Your task to perform on an android device: Find the nearest grocery store Image 0: 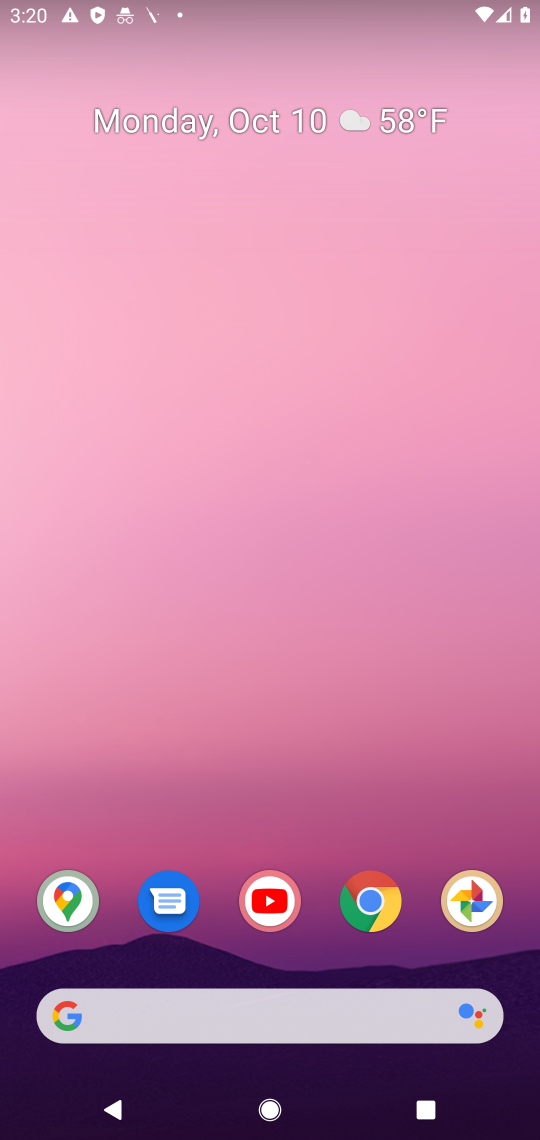
Step 0: drag from (206, 954) to (232, 521)
Your task to perform on an android device: Find the nearest grocery store Image 1: 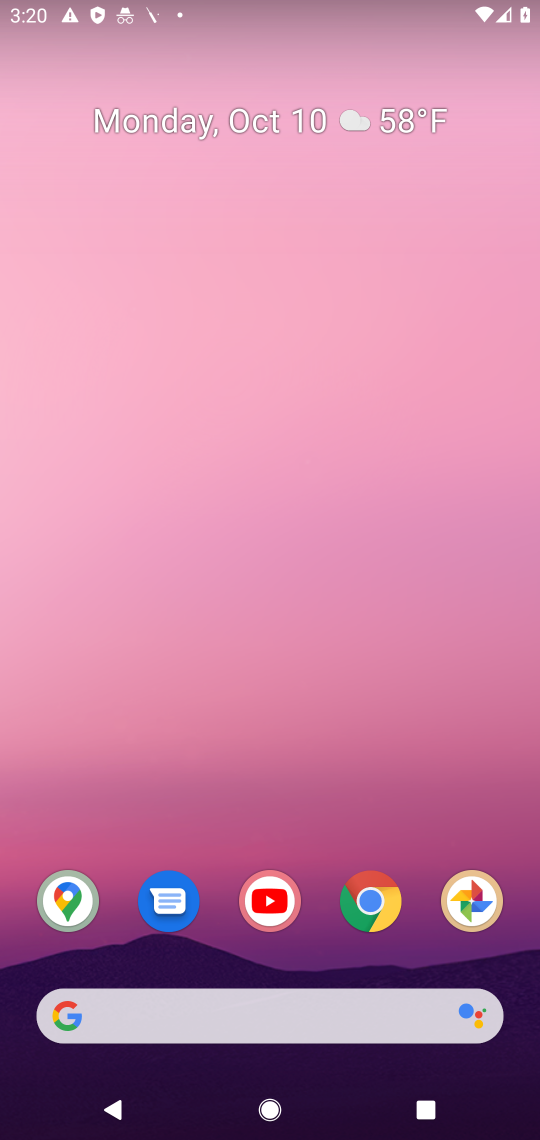
Step 1: drag from (281, 932) to (284, 525)
Your task to perform on an android device: Find the nearest grocery store Image 2: 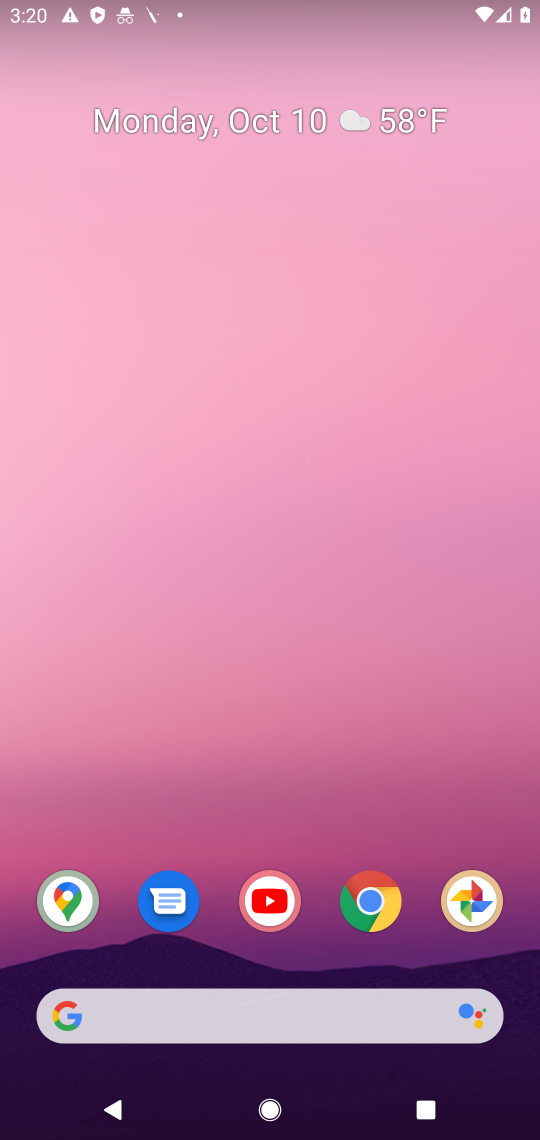
Step 2: drag from (361, 974) to (335, 563)
Your task to perform on an android device: Find the nearest grocery store Image 3: 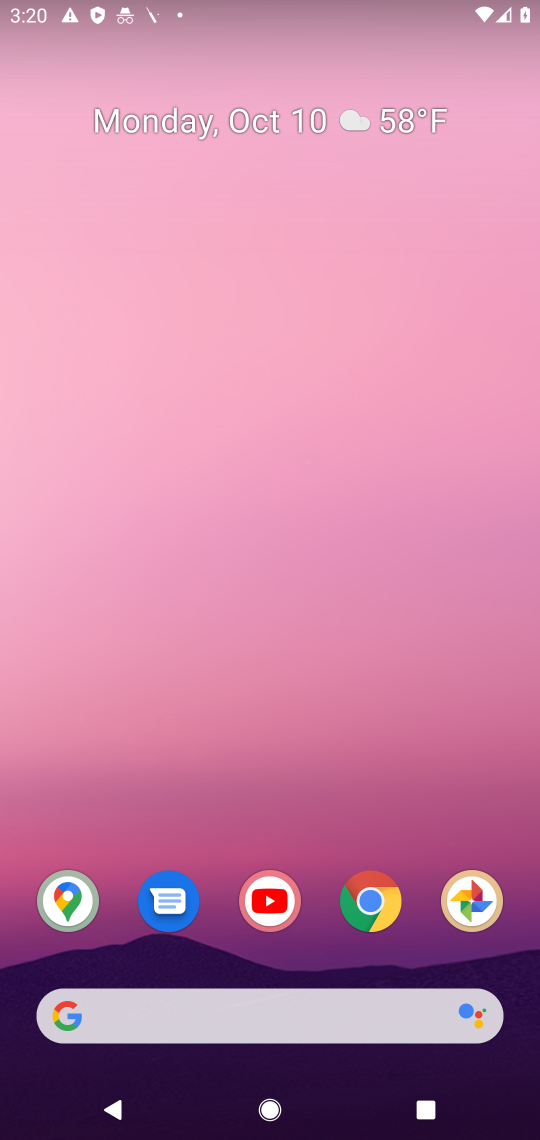
Step 3: drag from (375, 1043) to (375, 500)
Your task to perform on an android device: Find the nearest grocery store Image 4: 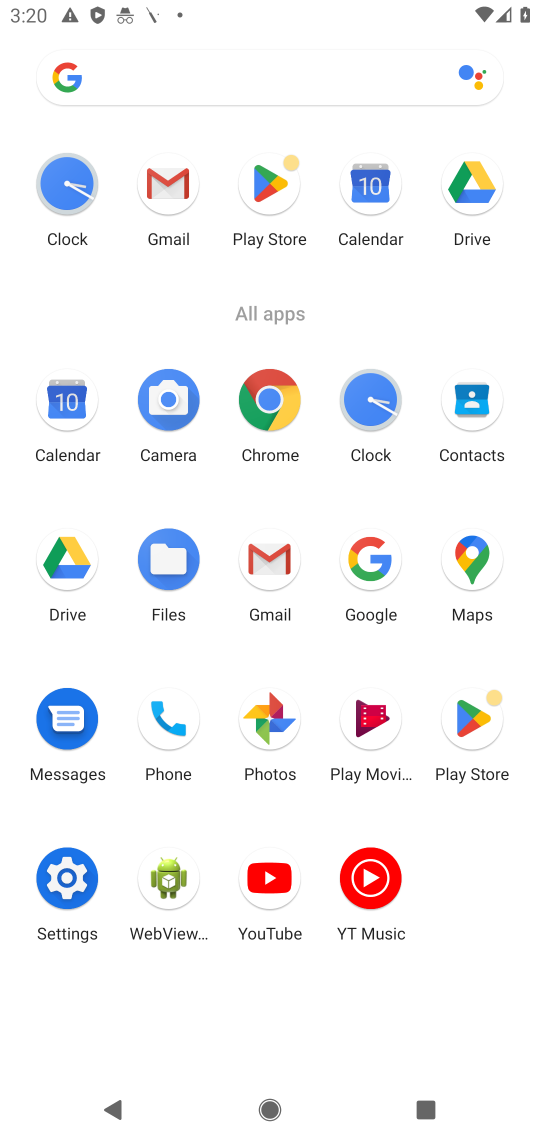
Step 4: click (374, 590)
Your task to perform on an android device: Find the nearest grocery store Image 5: 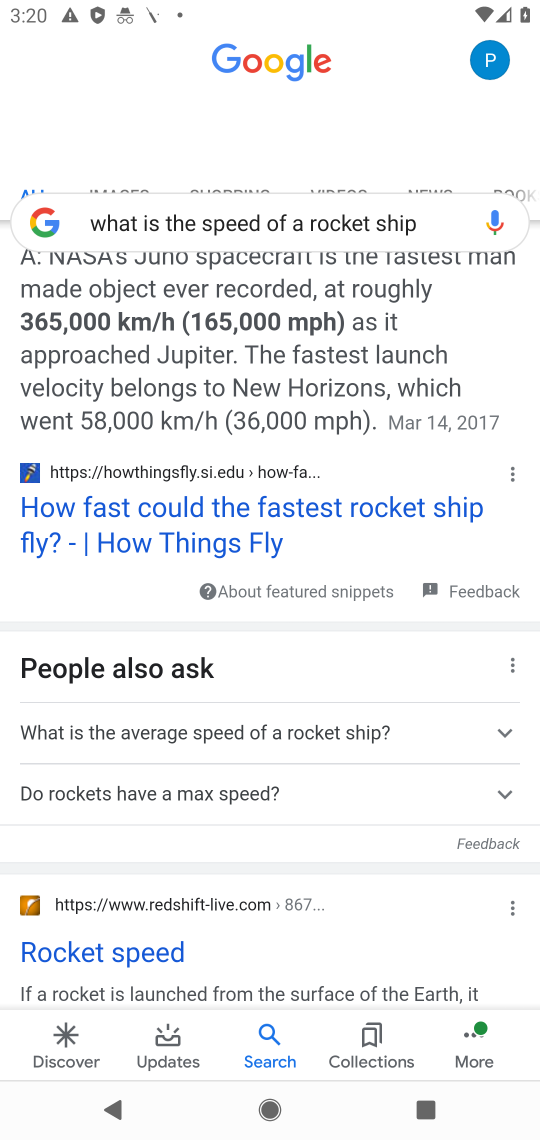
Step 5: click (410, 235)
Your task to perform on an android device: Find the nearest grocery store Image 6: 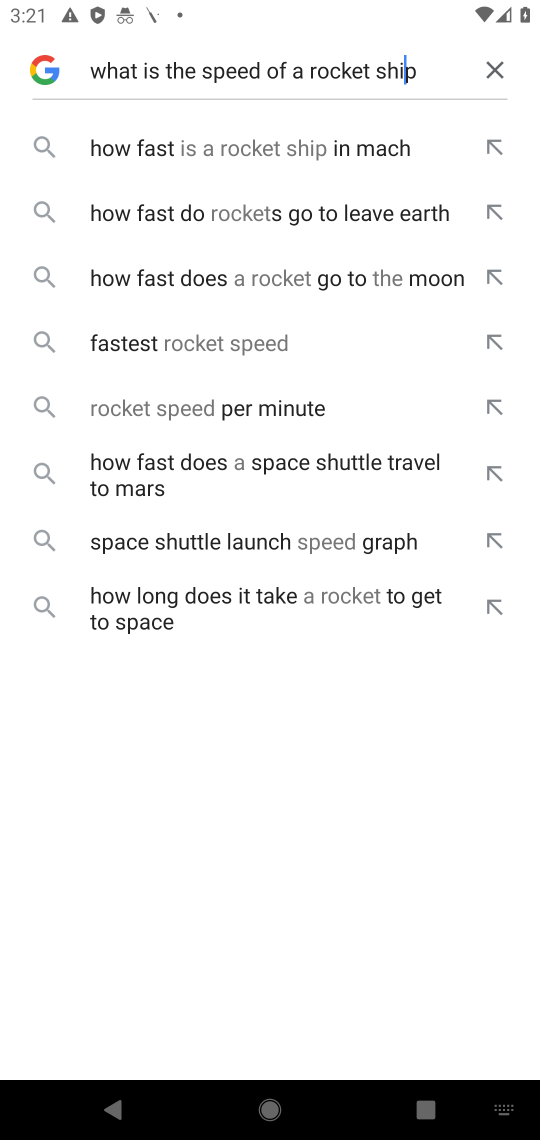
Step 6: click (501, 66)
Your task to perform on an android device: Find the nearest grocery store Image 7: 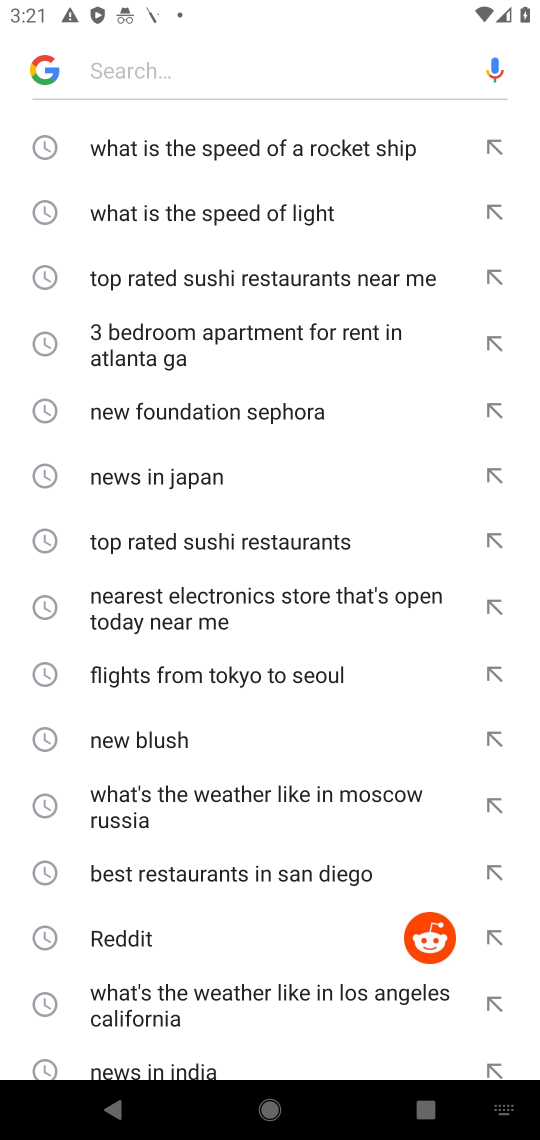
Step 7: type "nearest grocery store"
Your task to perform on an android device: Find the nearest grocery store Image 8: 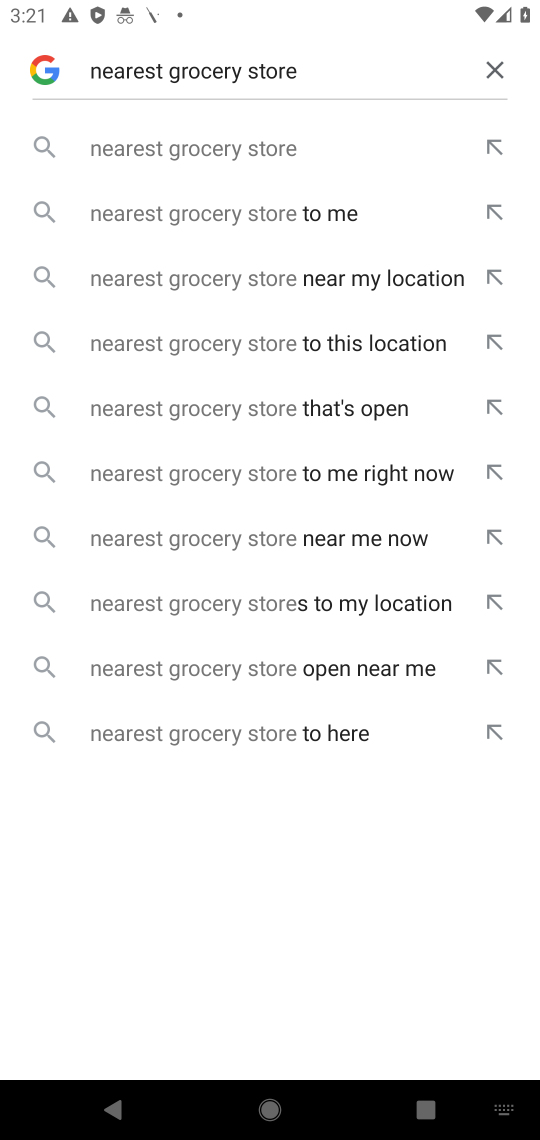
Step 8: click (333, 139)
Your task to perform on an android device: Find the nearest grocery store Image 9: 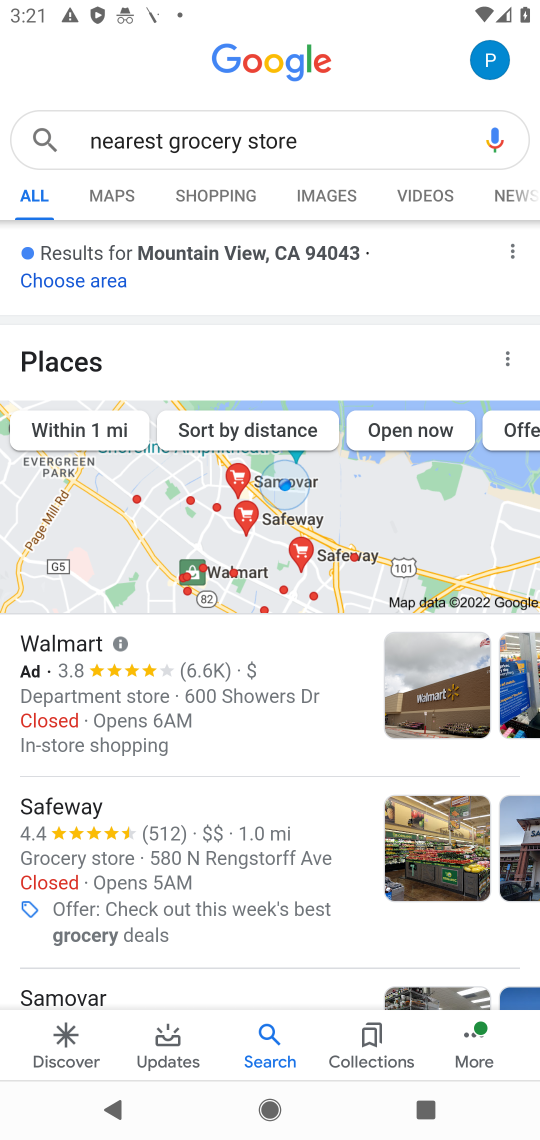
Step 9: task complete